Your task to perform on an android device: turn on location history Image 0: 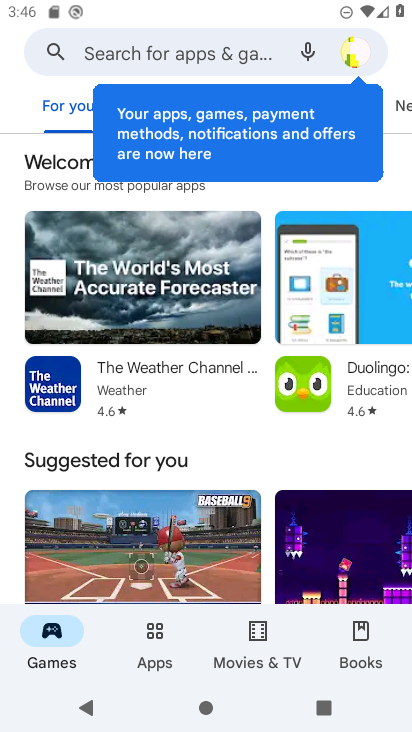
Step 0: press home button
Your task to perform on an android device: turn on location history Image 1: 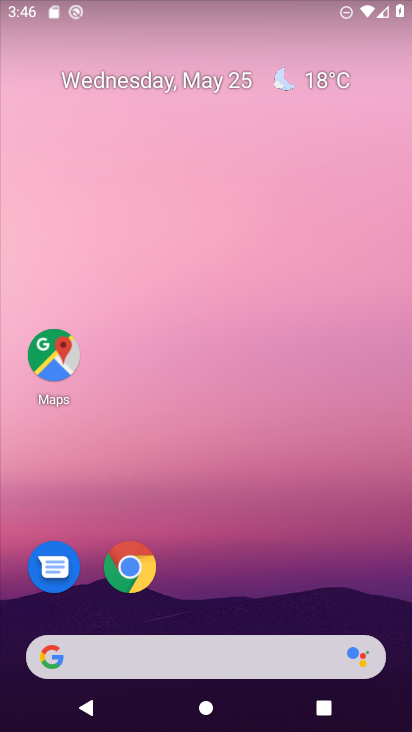
Step 1: drag from (374, 612) to (403, 202)
Your task to perform on an android device: turn on location history Image 2: 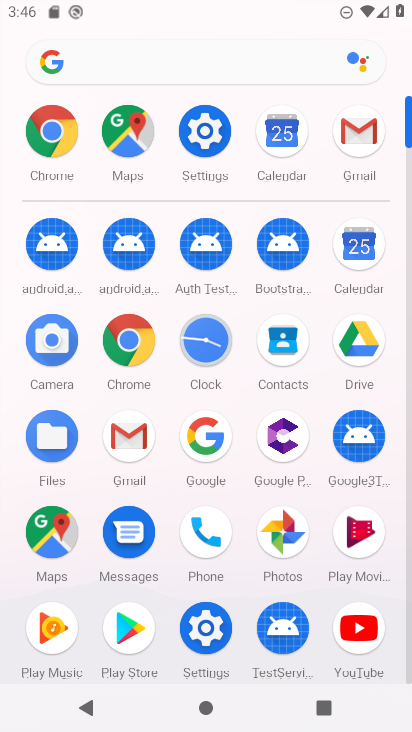
Step 2: click (213, 630)
Your task to perform on an android device: turn on location history Image 3: 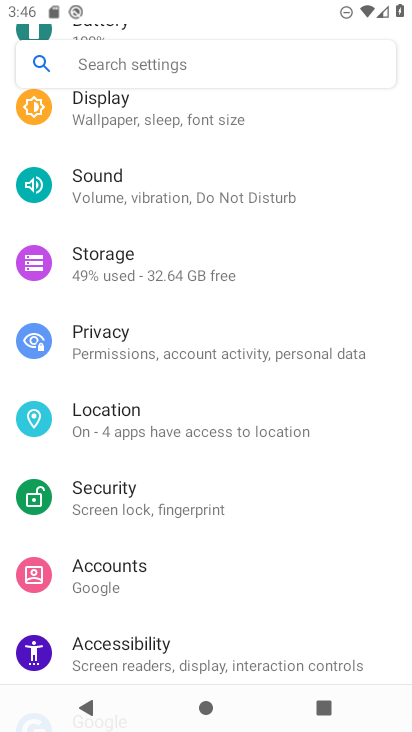
Step 3: drag from (213, 630) to (252, 449)
Your task to perform on an android device: turn on location history Image 4: 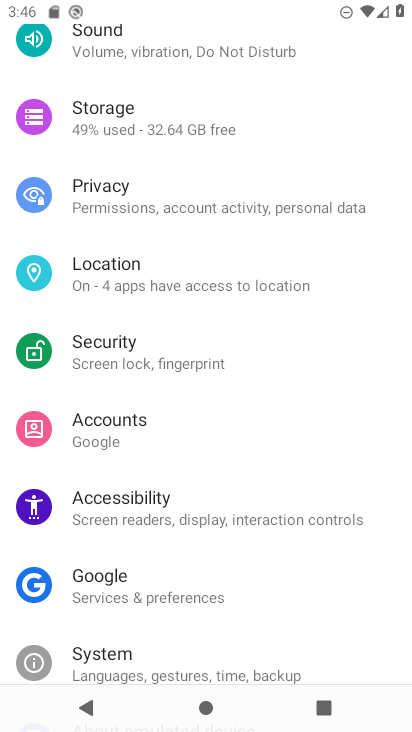
Step 4: drag from (317, 510) to (402, 346)
Your task to perform on an android device: turn on location history Image 5: 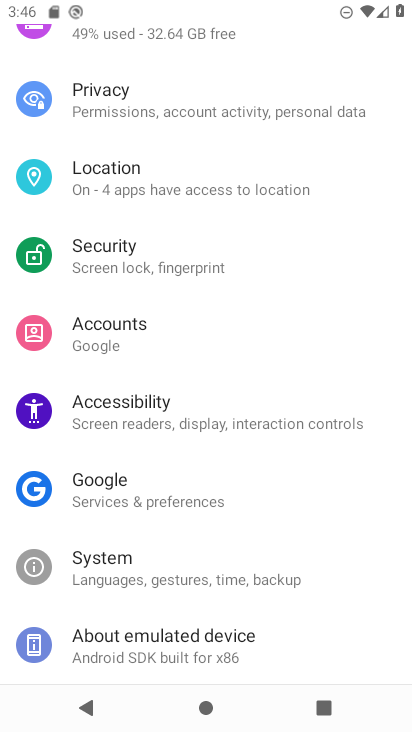
Step 5: drag from (345, 567) to (336, 402)
Your task to perform on an android device: turn on location history Image 6: 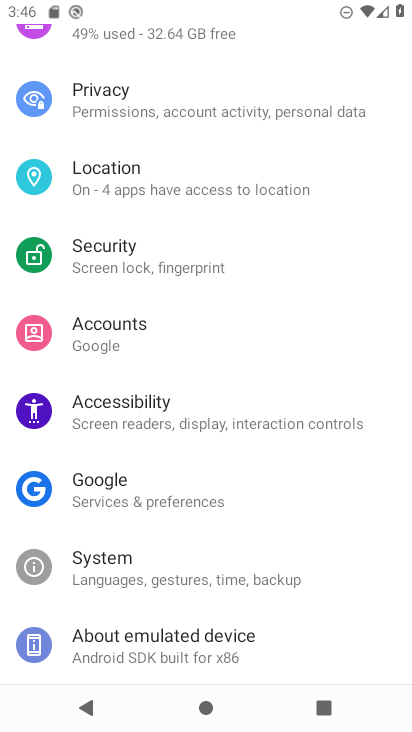
Step 6: drag from (335, 318) to (335, 424)
Your task to perform on an android device: turn on location history Image 7: 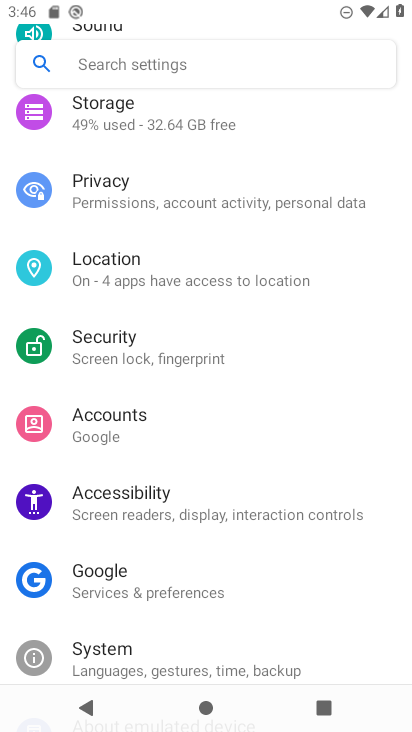
Step 7: drag from (336, 305) to (317, 413)
Your task to perform on an android device: turn on location history Image 8: 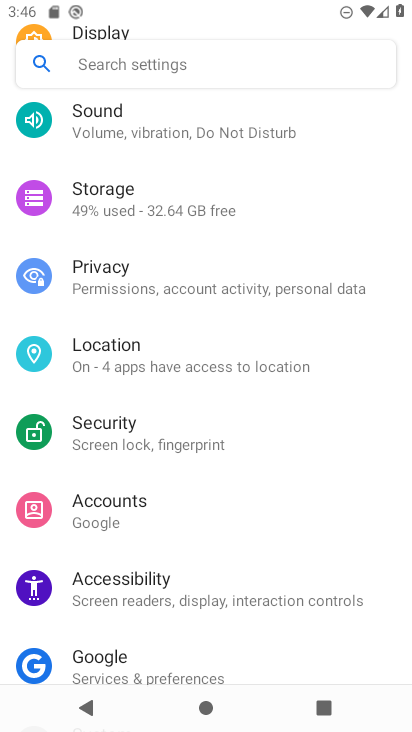
Step 8: drag from (330, 317) to (336, 398)
Your task to perform on an android device: turn on location history Image 9: 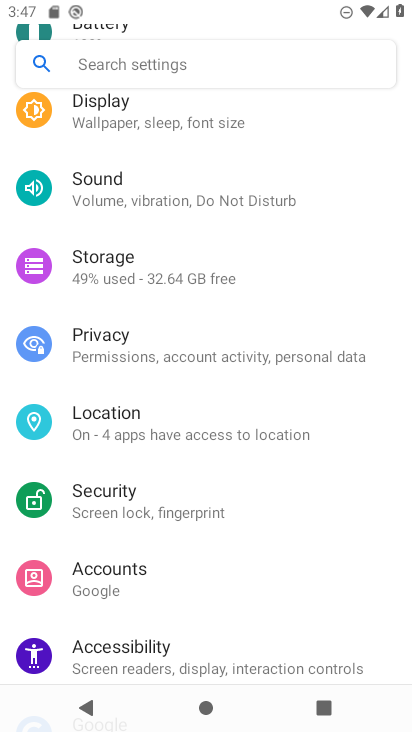
Step 9: click (288, 430)
Your task to perform on an android device: turn on location history Image 10: 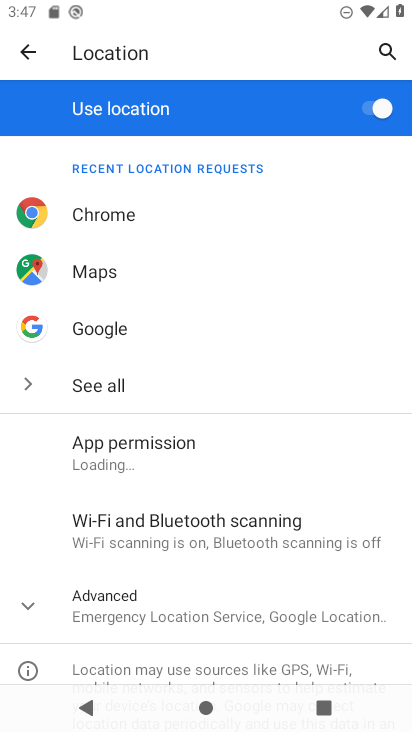
Step 10: drag from (287, 483) to (313, 349)
Your task to perform on an android device: turn on location history Image 11: 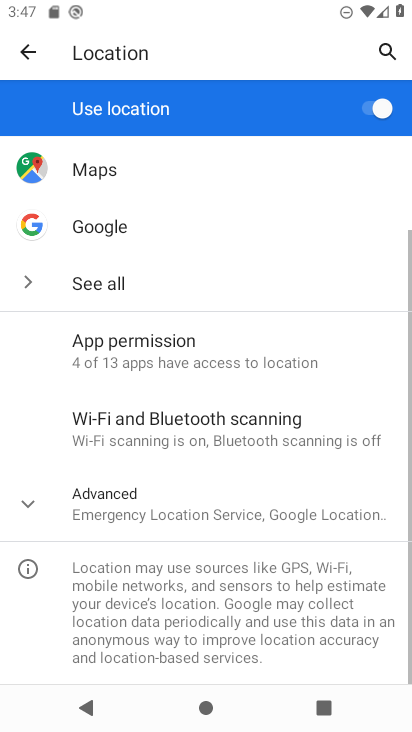
Step 11: click (283, 510)
Your task to perform on an android device: turn on location history Image 12: 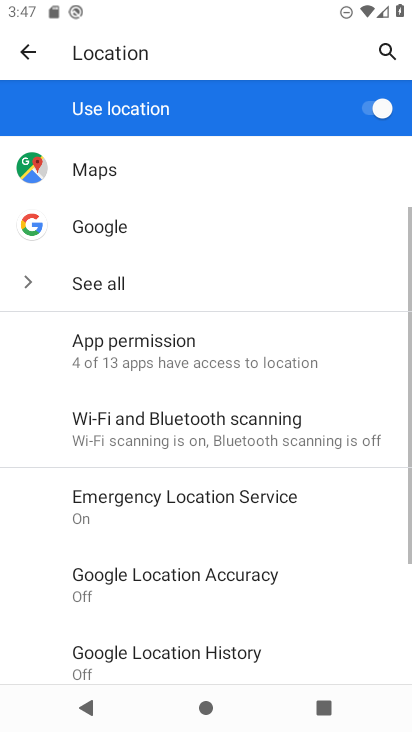
Step 12: drag from (283, 510) to (301, 408)
Your task to perform on an android device: turn on location history Image 13: 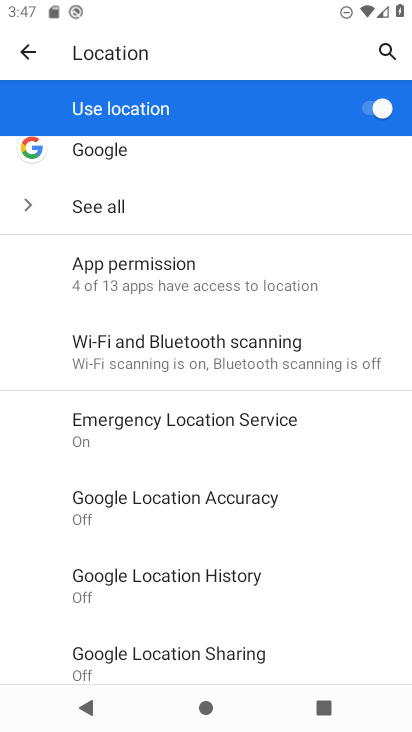
Step 13: drag from (295, 527) to (313, 460)
Your task to perform on an android device: turn on location history Image 14: 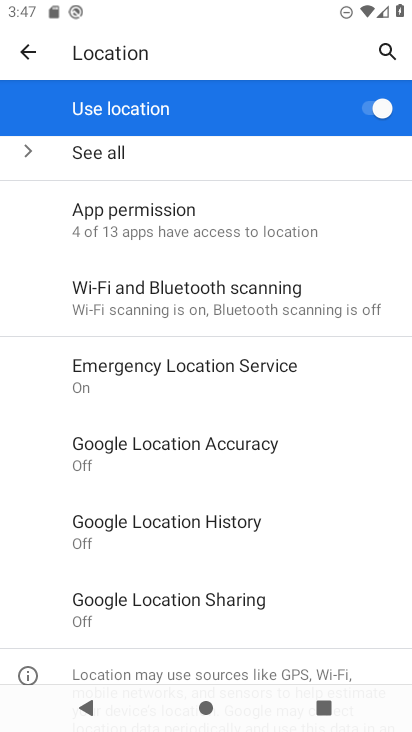
Step 14: click (126, 503)
Your task to perform on an android device: turn on location history Image 15: 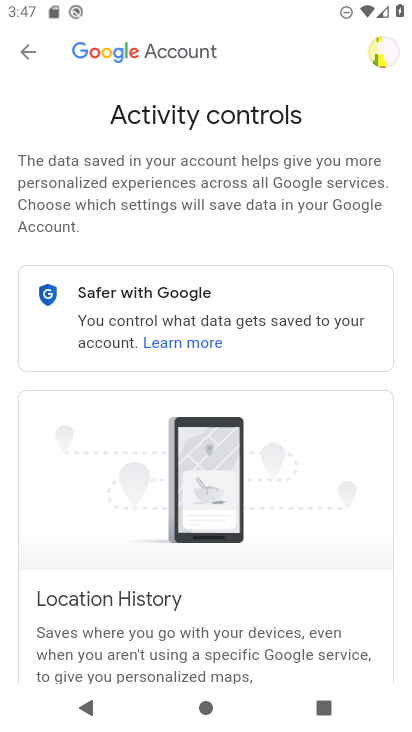
Step 15: drag from (273, 452) to (282, 344)
Your task to perform on an android device: turn on location history Image 16: 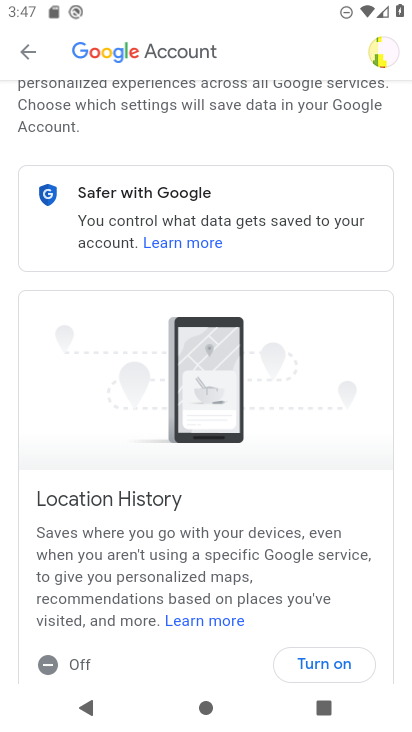
Step 16: drag from (268, 557) to (276, 409)
Your task to perform on an android device: turn on location history Image 17: 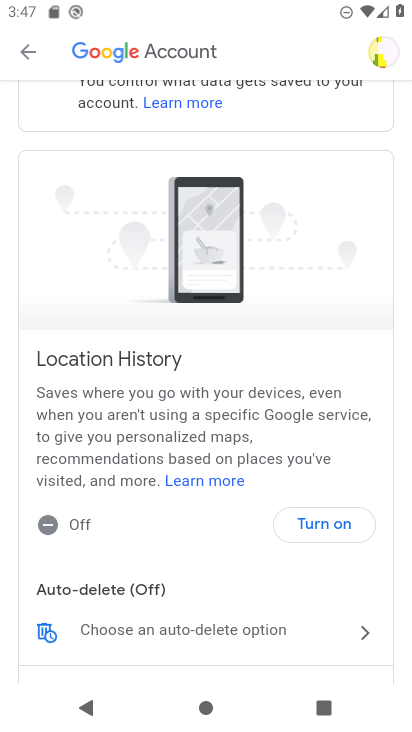
Step 17: click (326, 519)
Your task to perform on an android device: turn on location history Image 18: 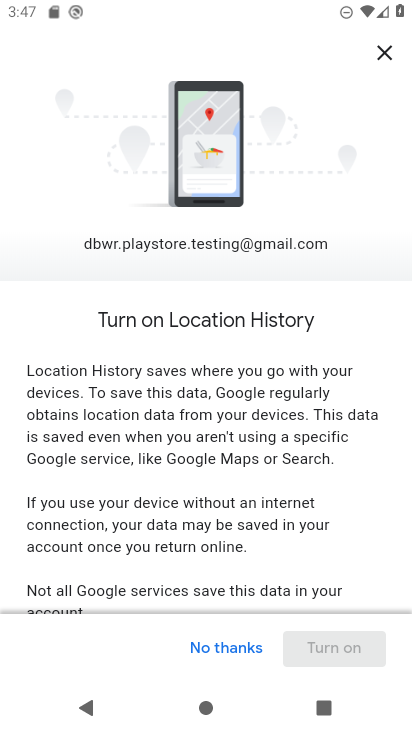
Step 18: drag from (329, 571) to (309, 446)
Your task to perform on an android device: turn on location history Image 19: 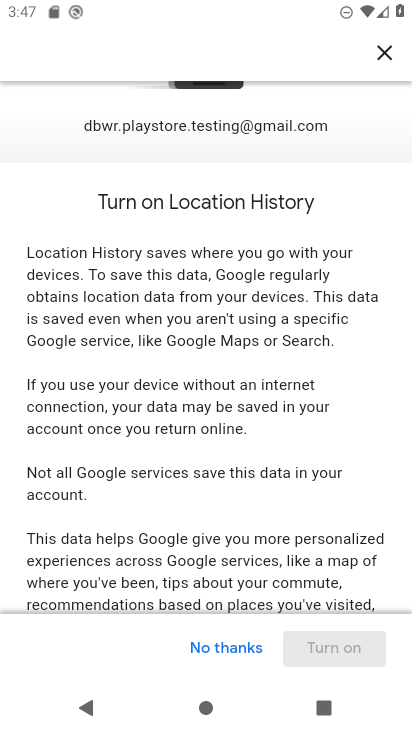
Step 19: drag from (294, 550) to (299, 439)
Your task to perform on an android device: turn on location history Image 20: 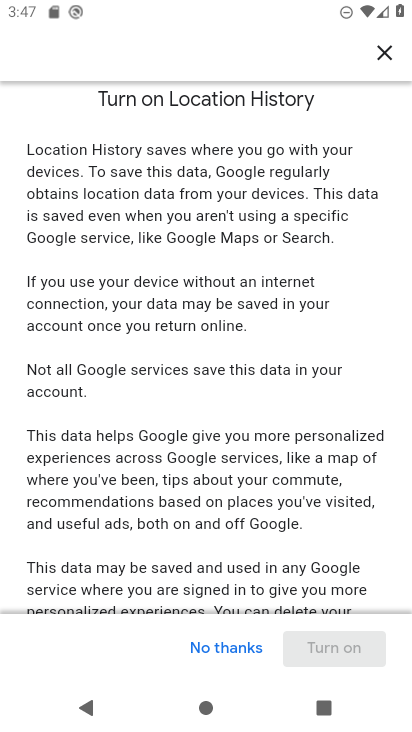
Step 20: drag from (315, 527) to (307, 407)
Your task to perform on an android device: turn on location history Image 21: 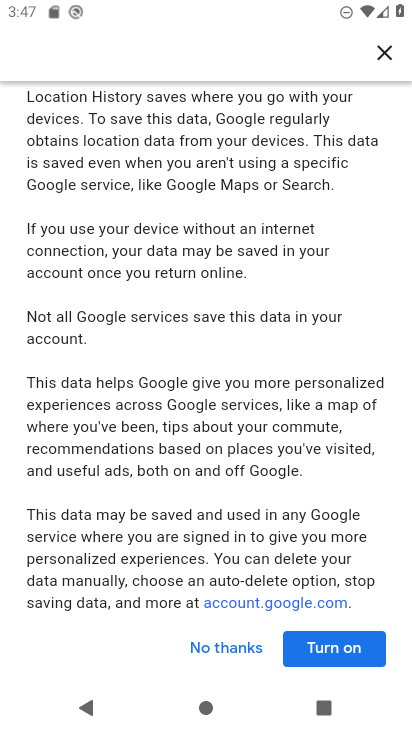
Step 21: click (328, 660)
Your task to perform on an android device: turn on location history Image 22: 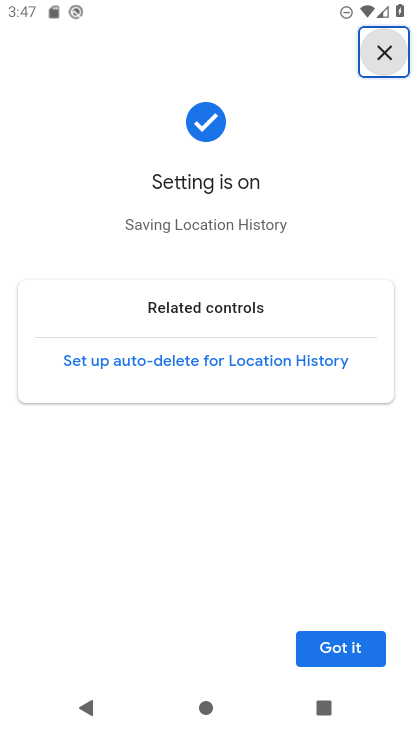
Step 22: task complete